Your task to perform on an android device: check android version Image 0: 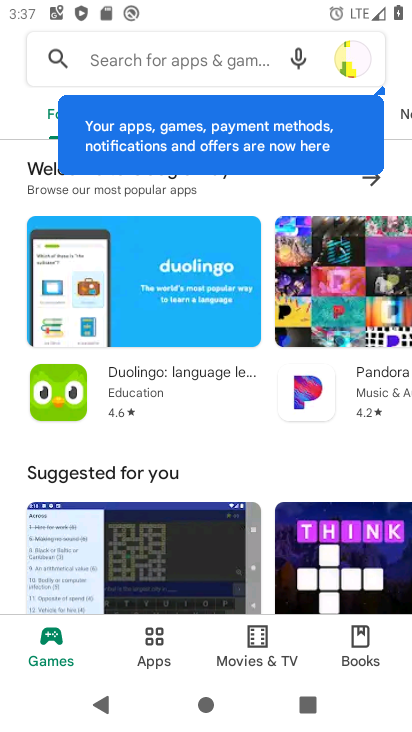
Step 0: press home button
Your task to perform on an android device: check android version Image 1: 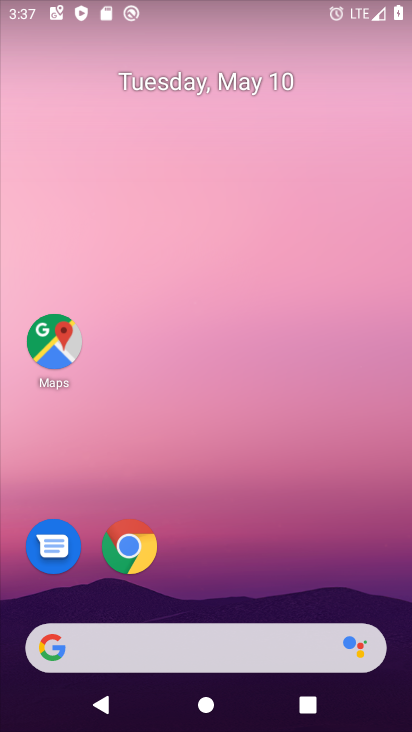
Step 1: drag from (243, 584) to (257, 22)
Your task to perform on an android device: check android version Image 2: 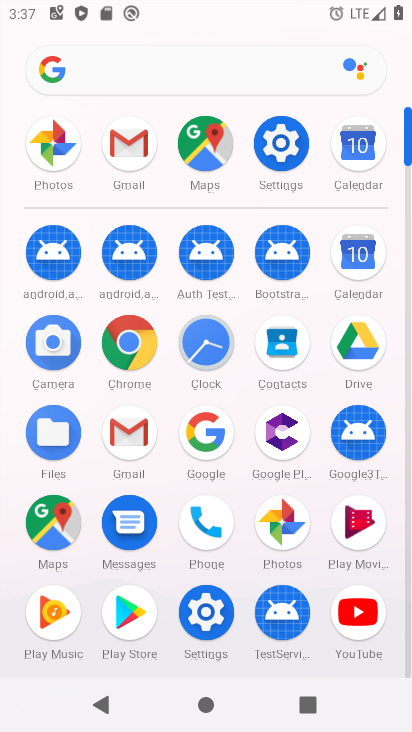
Step 2: click (212, 615)
Your task to perform on an android device: check android version Image 3: 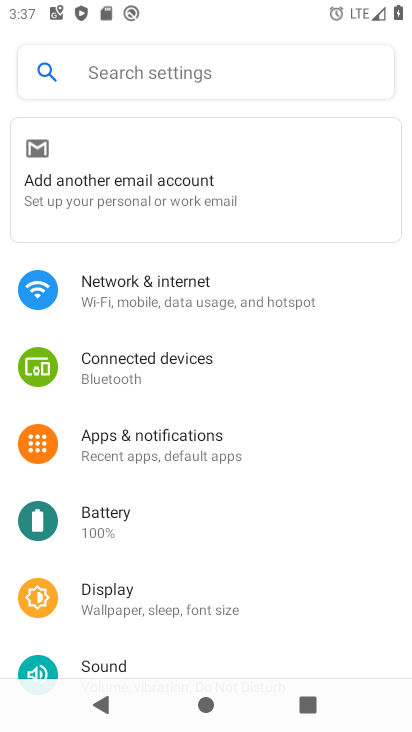
Step 3: drag from (162, 524) to (202, 176)
Your task to perform on an android device: check android version Image 4: 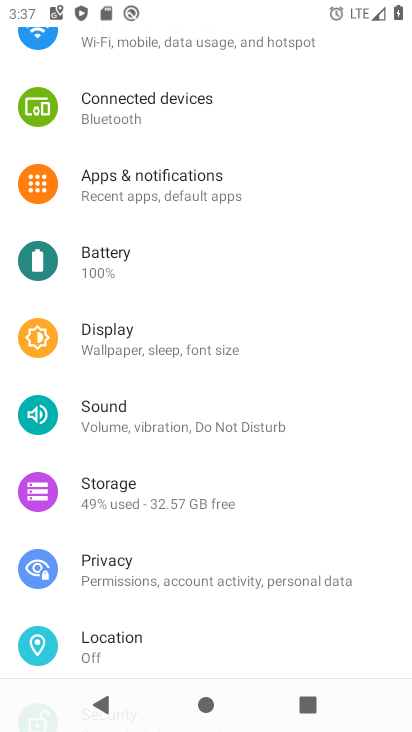
Step 4: drag from (211, 632) to (256, 126)
Your task to perform on an android device: check android version Image 5: 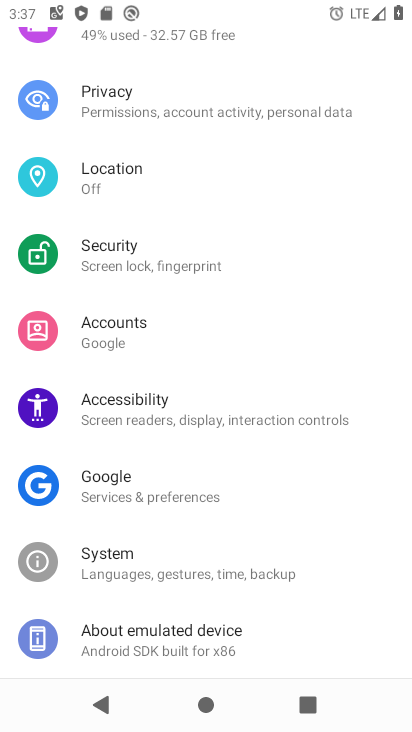
Step 5: click (174, 622)
Your task to perform on an android device: check android version Image 6: 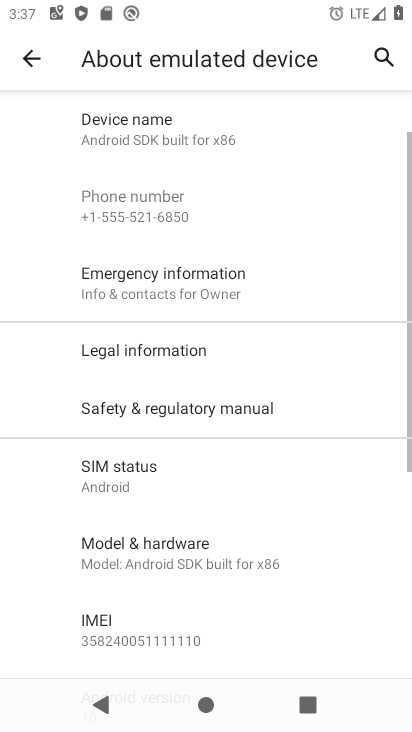
Step 6: drag from (158, 550) to (195, 260)
Your task to perform on an android device: check android version Image 7: 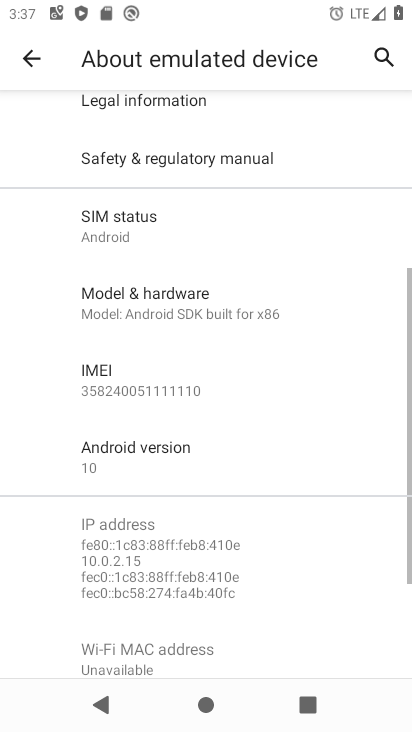
Step 7: click (151, 467)
Your task to perform on an android device: check android version Image 8: 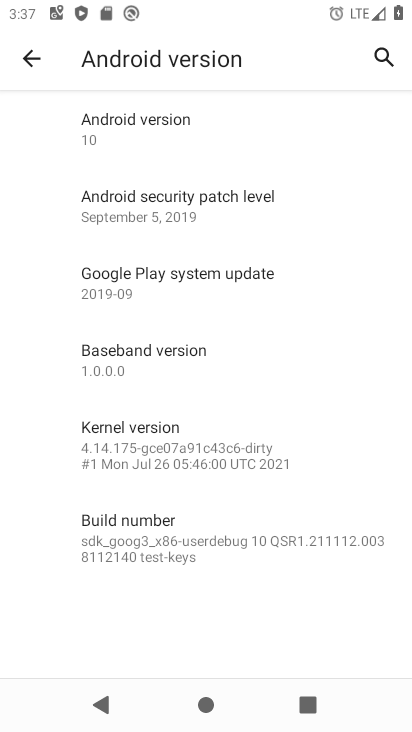
Step 8: task complete